Your task to perform on an android device: change the clock display to analog Image 0: 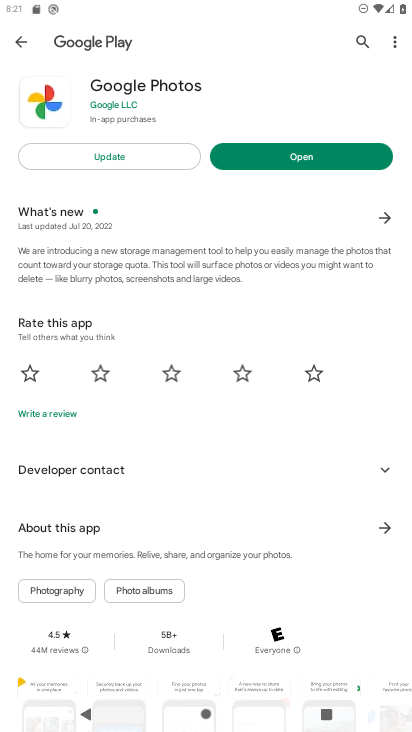
Step 0: press home button
Your task to perform on an android device: change the clock display to analog Image 1: 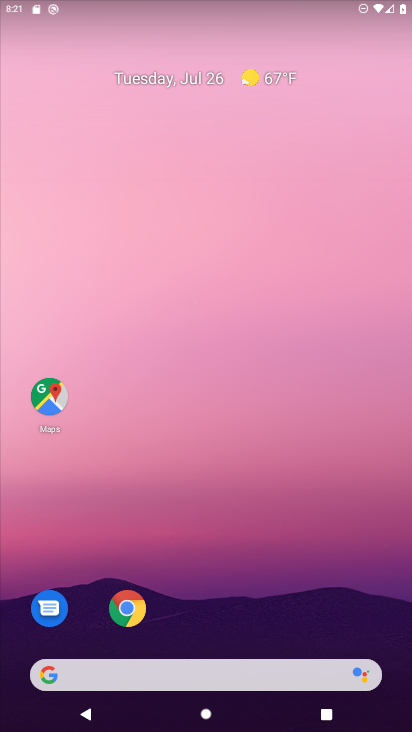
Step 1: drag from (244, 263) to (288, 112)
Your task to perform on an android device: change the clock display to analog Image 2: 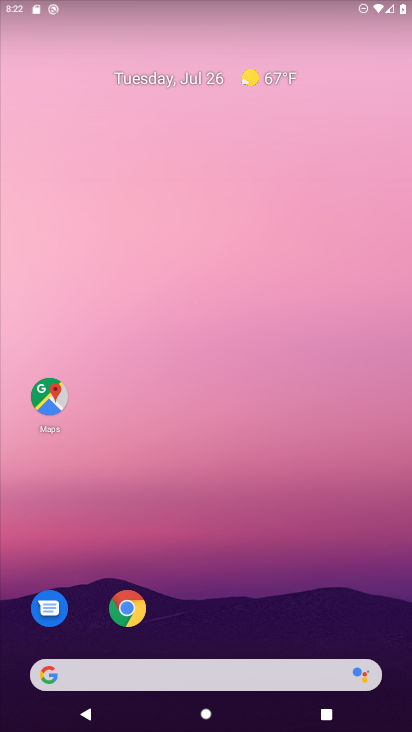
Step 2: drag from (200, 680) to (237, 157)
Your task to perform on an android device: change the clock display to analog Image 3: 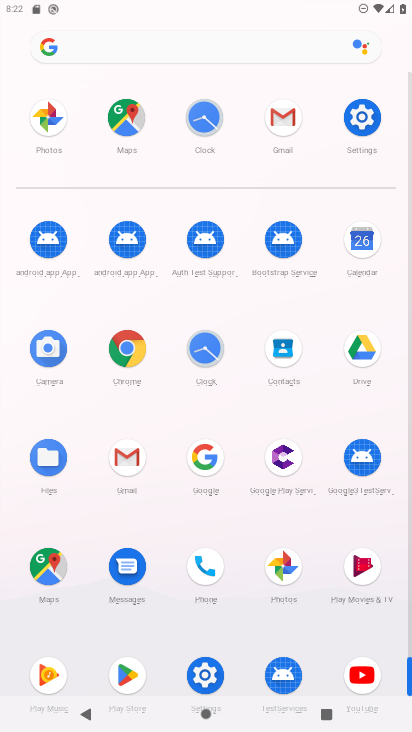
Step 3: click (208, 345)
Your task to perform on an android device: change the clock display to analog Image 4: 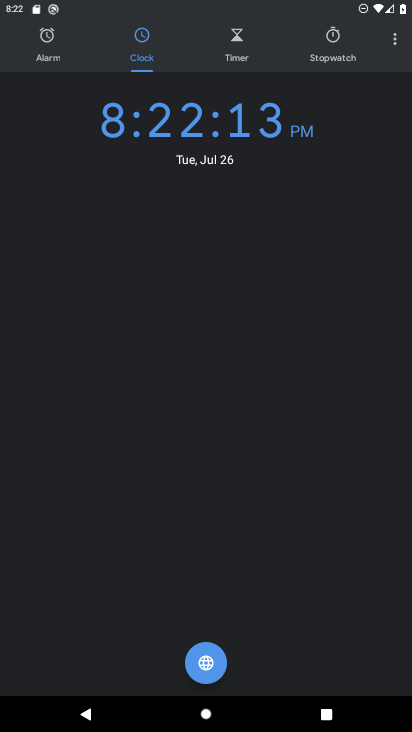
Step 4: click (394, 37)
Your task to perform on an android device: change the clock display to analog Image 5: 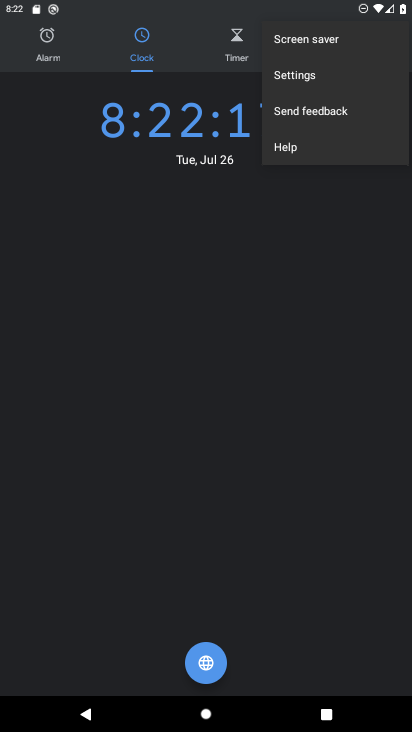
Step 5: click (300, 74)
Your task to perform on an android device: change the clock display to analog Image 6: 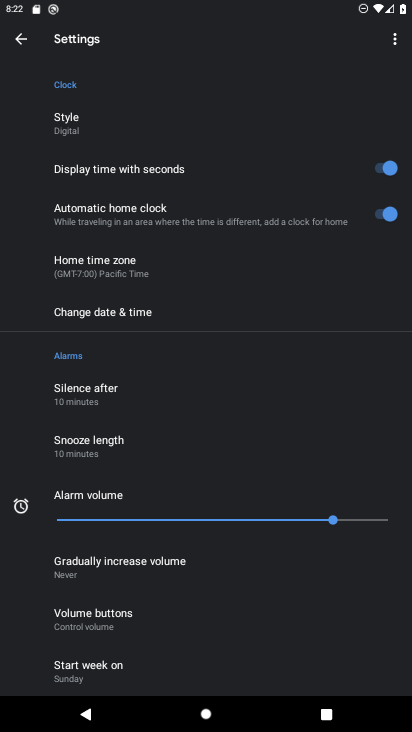
Step 6: click (78, 129)
Your task to perform on an android device: change the clock display to analog Image 7: 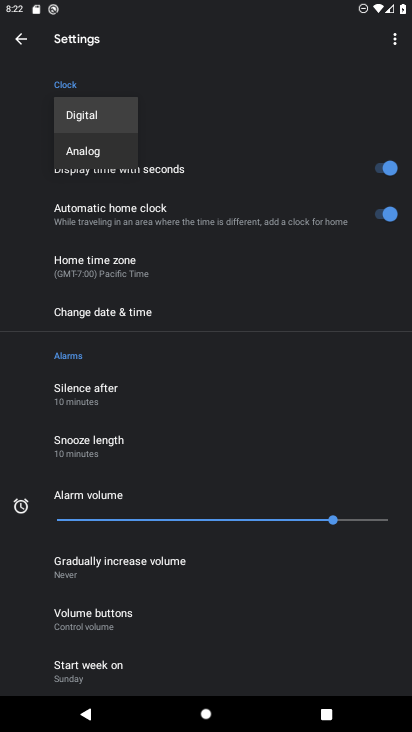
Step 7: click (98, 153)
Your task to perform on an android device: change the clock display to analog Image 8: 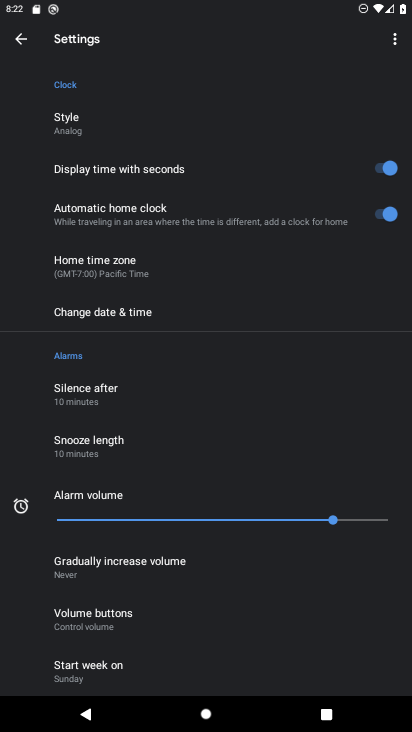
Step 8: task complete